Your task to perform on an android device: turn off priority inbox in the gmail app Image 0: 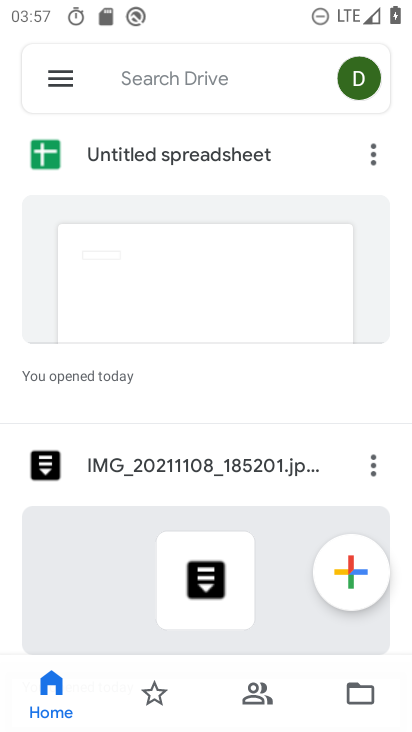
Step 0: press home button
Your task to perform on an android device: turn off priority inbox in the gmail app Image 1: 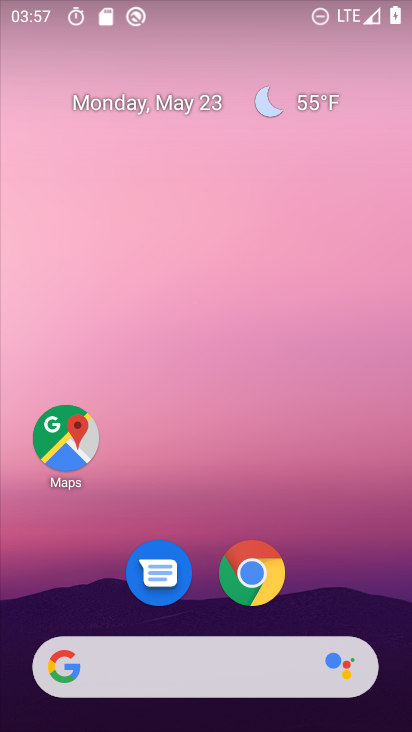
Step 1: drag from (330, 576) to (250, 157)
Your task to perform on an android device: turn off priority inbox in the gmail app Image 2: 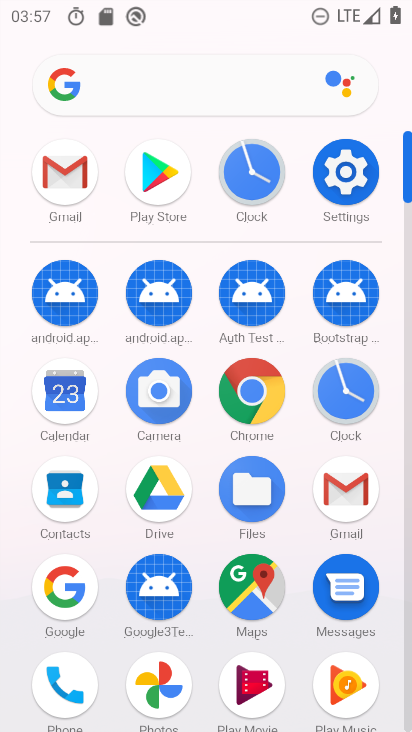
Step 2: click (58, 183)
Your task to perform on an android device: turn off priority inbox in the gmail app Image 3: 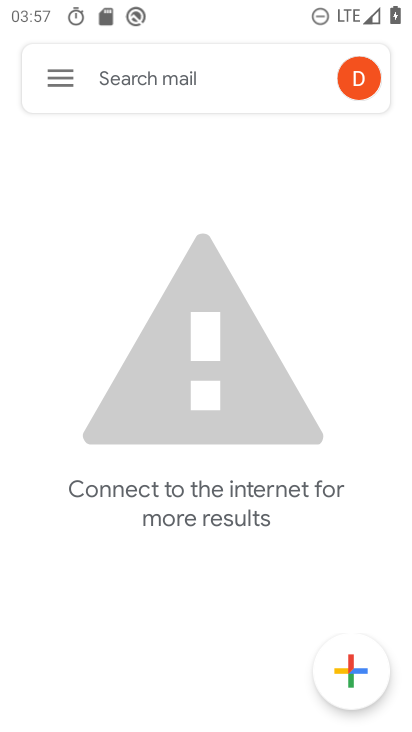
Step 3: click (63, 78)
Your task to perform on an android device: turn off priority inbox in the gmail app Image 4: 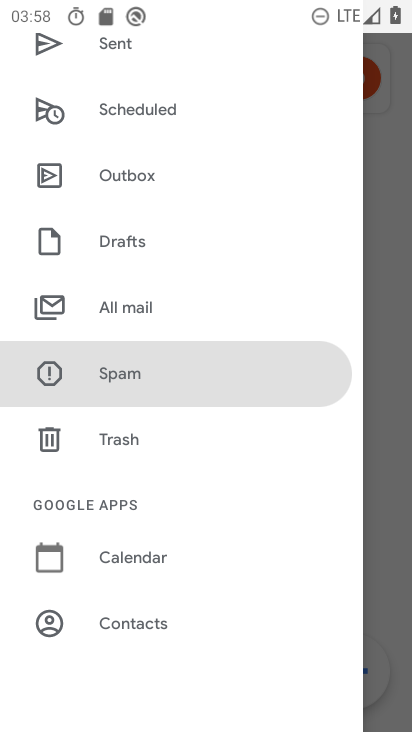
Step 4: drag from (216, 152) to (138, 571)
Your task to perform on an android device: turn off priority inbox in the gmail app Image 5: 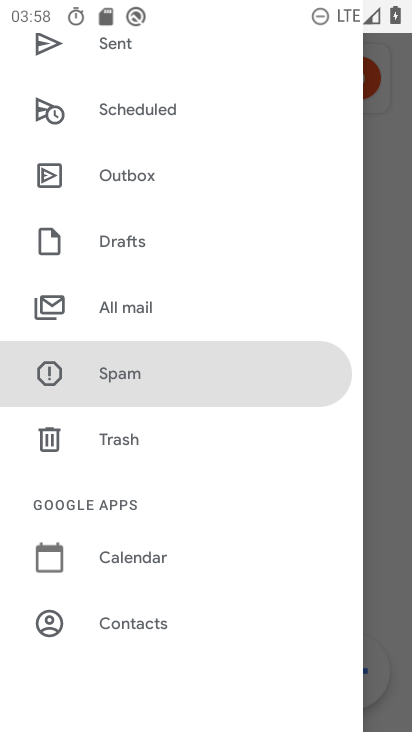
Step 5: drag from (209, 181) to (179, 534)
Your task to perform on an android device: turn off priority inbox in the gmail app Image 6: 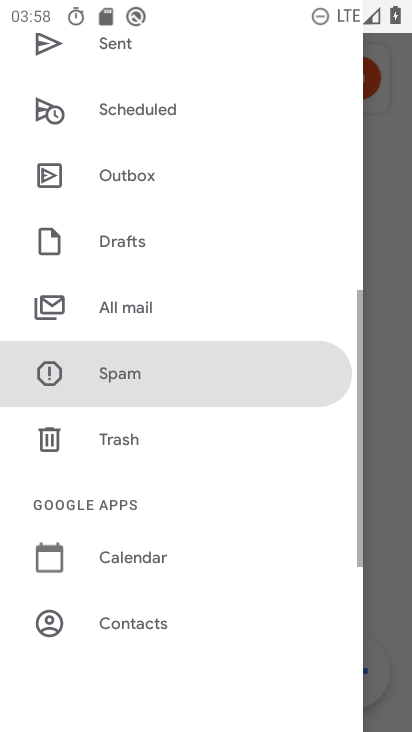
Step 6: drag from (179, 534) to (237, 67)
Your task to perform on an android device: turn off priority inbox in the gmail app Image 7: 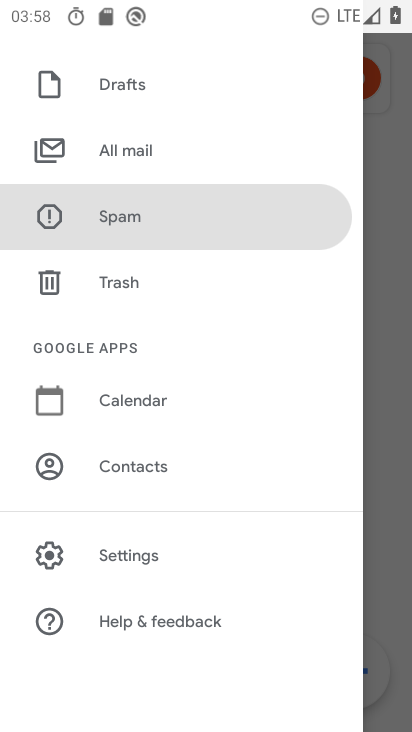
Step 7: click (140, 561)
Your task to perform on an android device: turn off priority inbox in the gmail app Image 8: 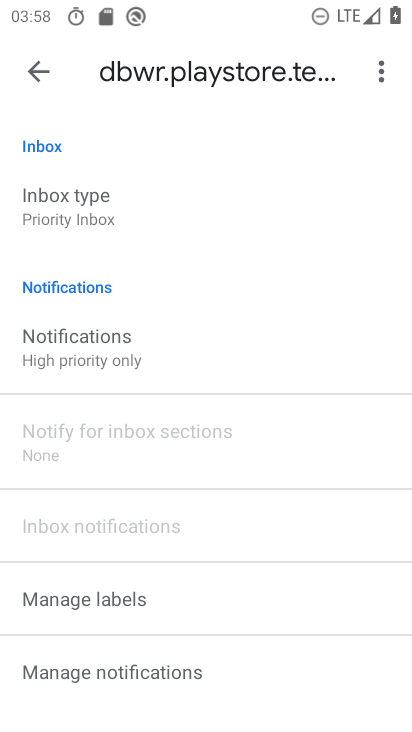
Step 8: click (72, 209)
Your task to perform on an android device: turn off priority inbox in the gmail app Image 9: 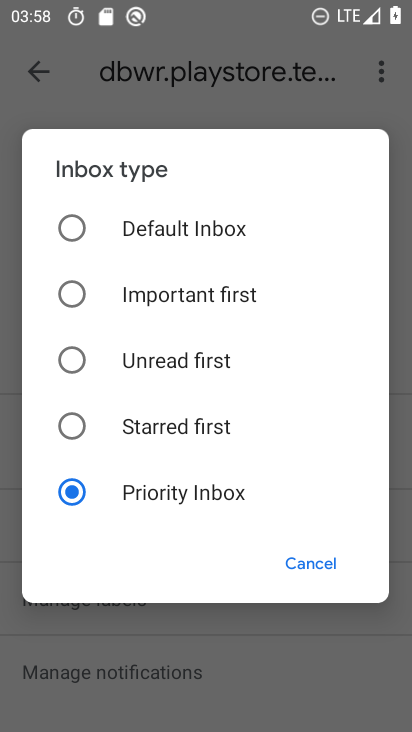
Step 9: click (71, 220)
Your task to perform on an android device: turn off priority inbox in the gmail app Image 10: 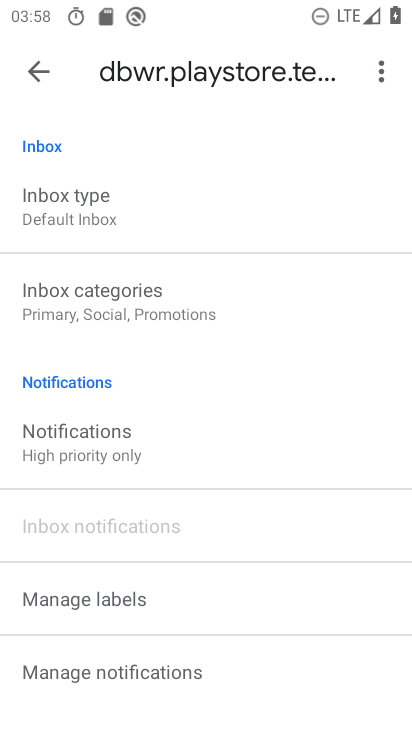
Step 10: task complete